Your task to perform on an android device: read, delete, or share a saved page in the chrome app Image 0: 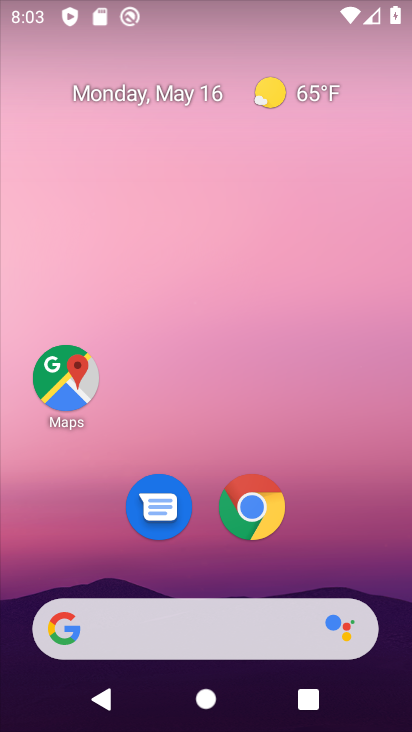
Step 0: click (259, 509)
Your task to perform on an android device: read, delete, or share a saved page in the chrome app Image 1: 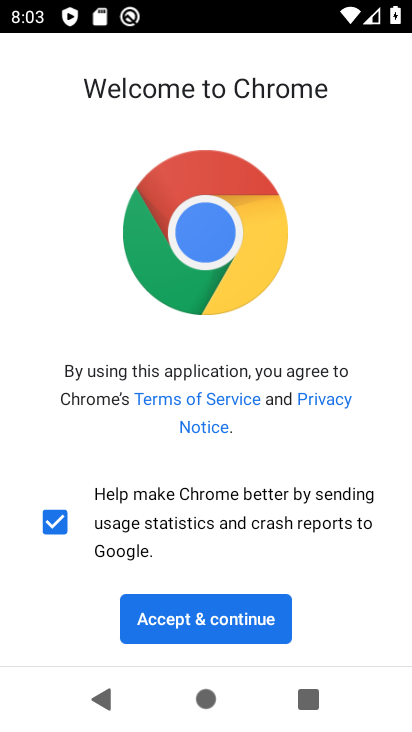
Step 1: click (231, 627)
Your task to perform on an android device: read, delete, or share a saved page in the chrome app Image 2: 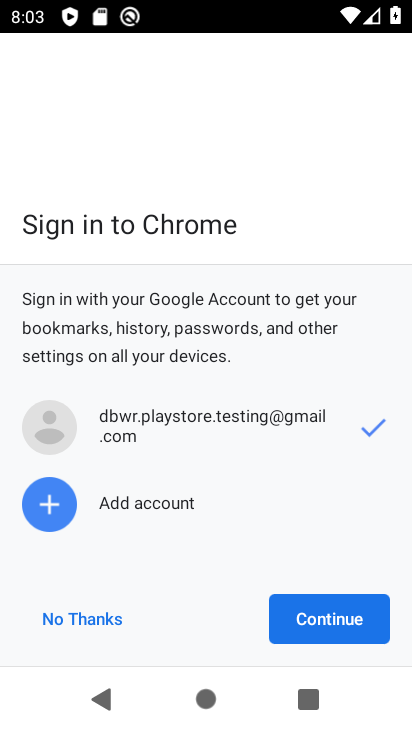
Step 2: click (285, 607)
Your task to perform on an android device: read, delete, or share a saved page in the chrome app Image 3: 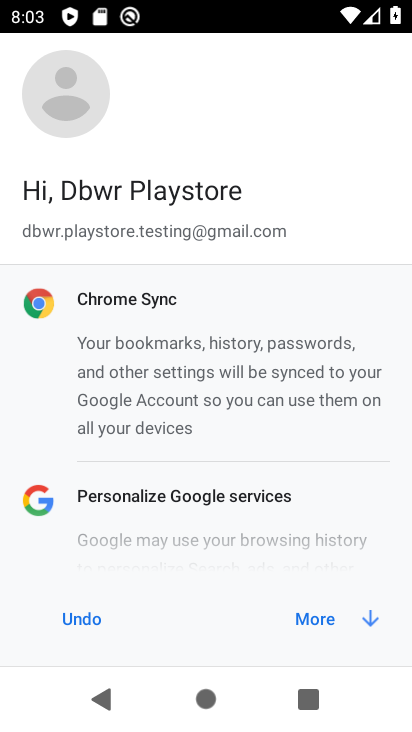
Step 3: click (343, 627)
Your task to perform on an android device: read, delete, or share a saved page in the chrome app Image 4: 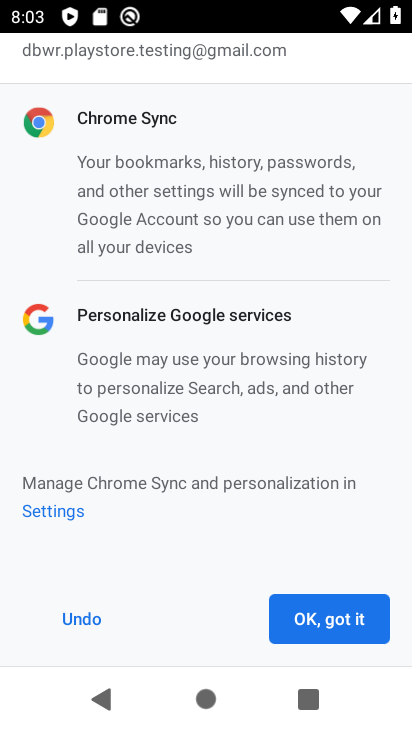
Step 4: click (341, 624)
Your task to perform on an android device: read, delete, or share a saved page in the chrome app Image 5: 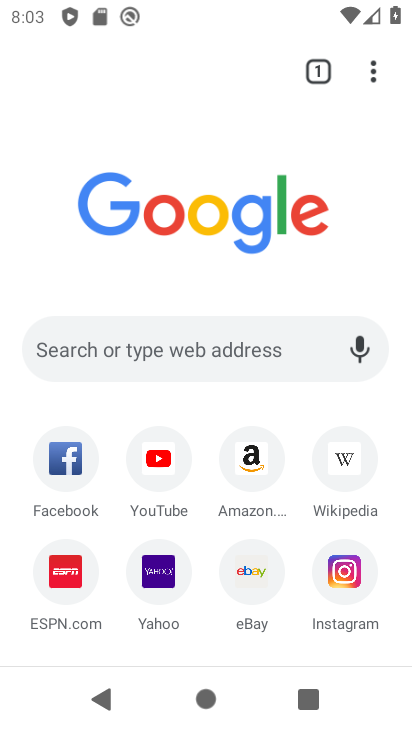
Step 5: click (378, 78)
Your task to perform on an android device: read, delete, or share a saved page in the chrome app Image 6: 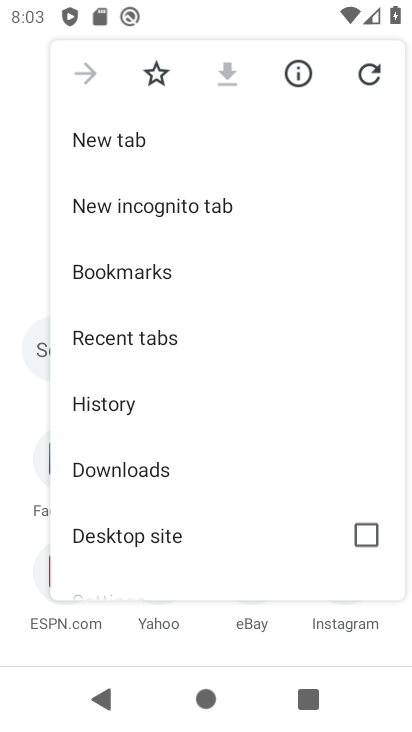
Step 6: click (116, 500)
Your task to perform on an android device: read, delete, or share a saved page in the chrome app Image 7: 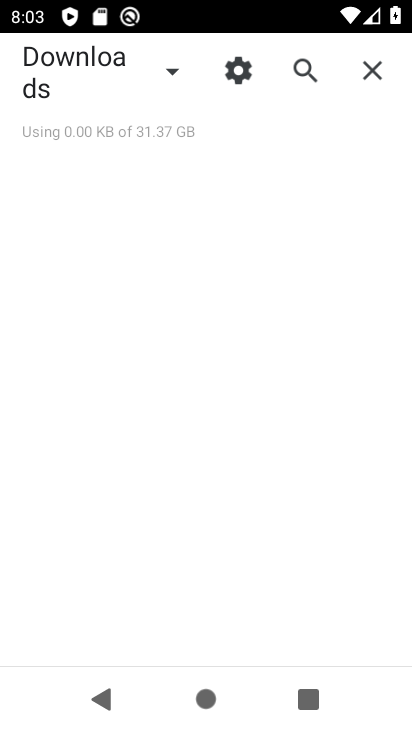
Step 7: task complete